Your task to perform on an android device: Open notification settings Image 0: 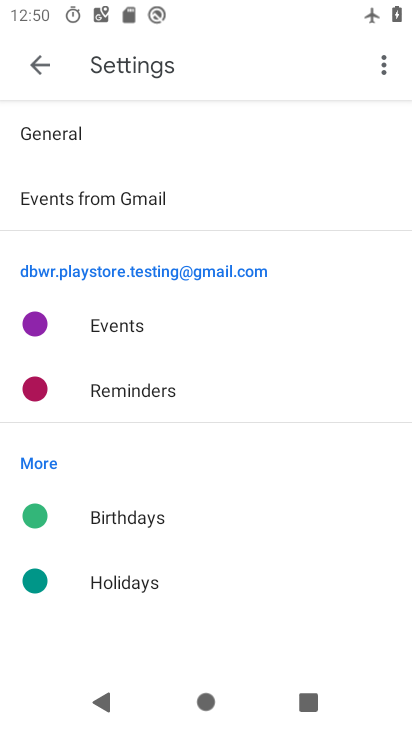
Step 0: press home button
Your task to perform on an android device: Open notification settings Image 1: 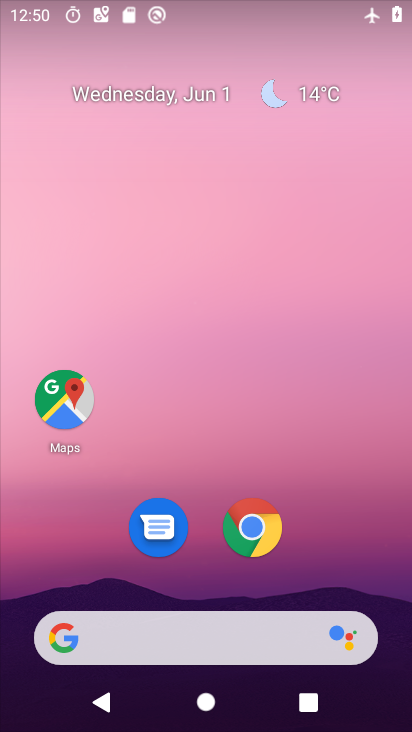
Step 1: drag from (366, 599) to (313, 7)
Your task to perform on an android device: Open notification settings Image 2: 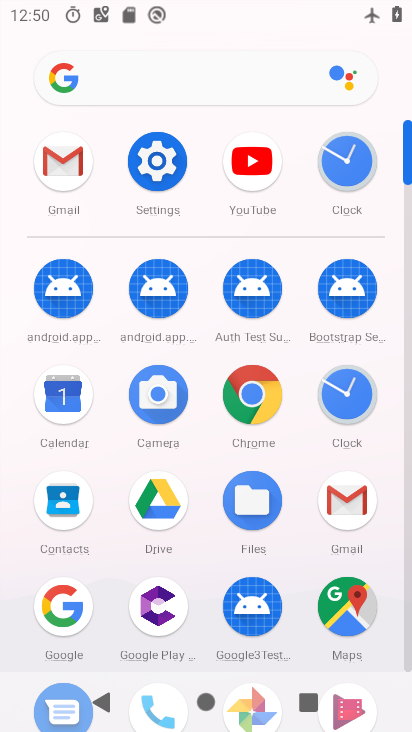
Step 2: click (160, 161)
Your task to perform on an android device: Open notification settings Image 3: 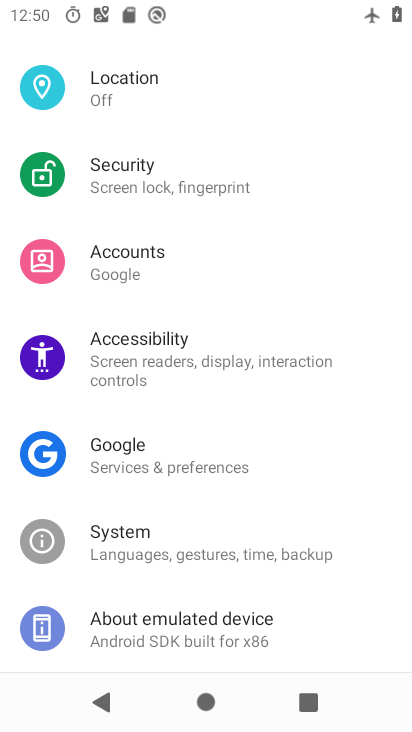
Step 3: drag from (284, 213) to (299, 638)
Your task to perform on an android device: Open notification settings Image 4: 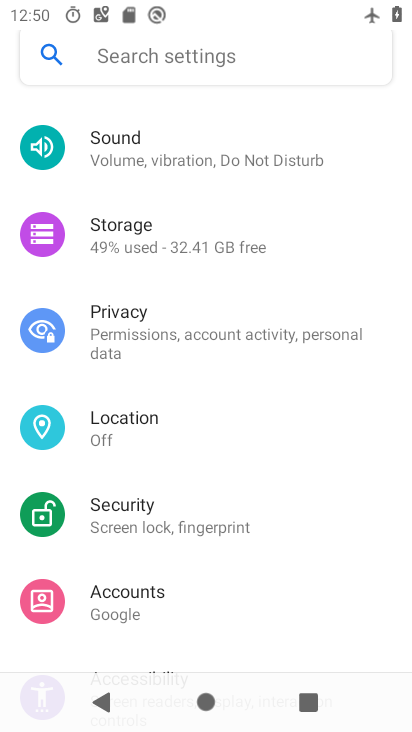
Step 4: drag from (268, 185) to (259, 598)
Your task to perform on an android device: Open notification settings Image 5: 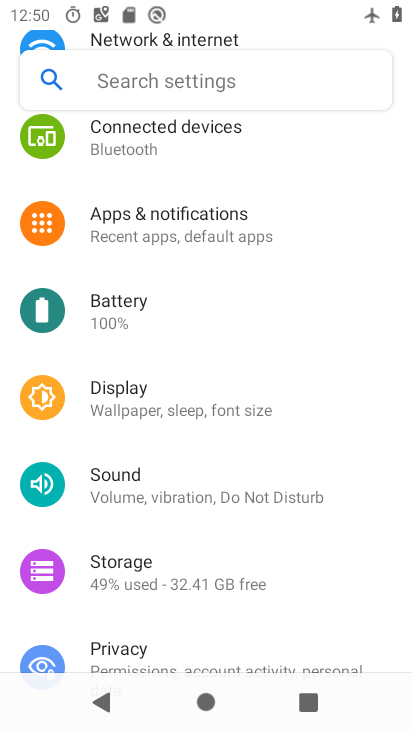
Step 5: click (185, 234)
Your task to perform on an android device: Open notification settings Image 6: 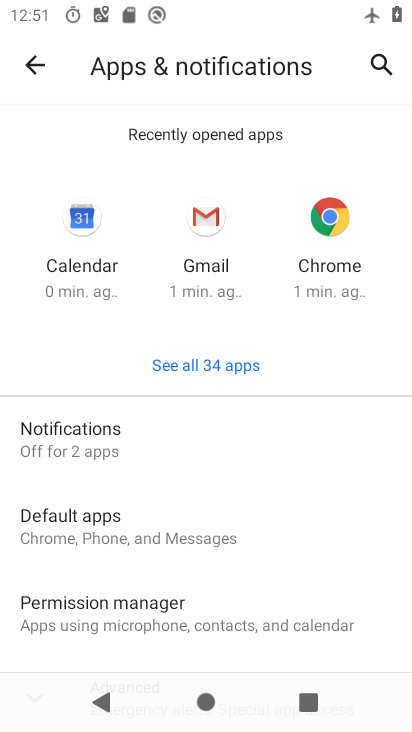
Step 6: click (64, 451)
Your task to perform on an android device: Open notification settings Image 7: 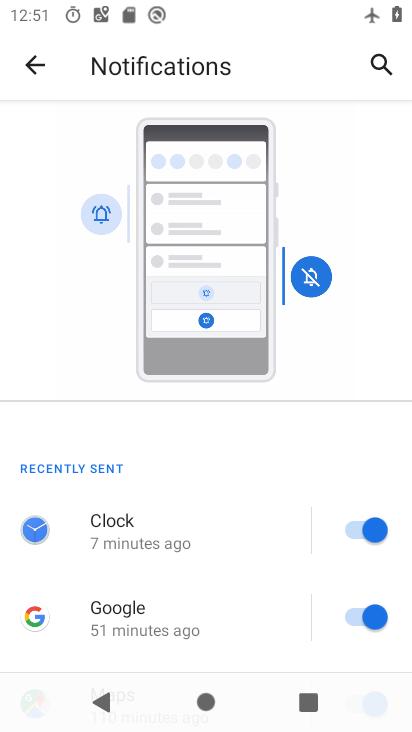
Step 7: task complete